Your task to perform on an android device: Show me popular videos on Youtube Image 0: 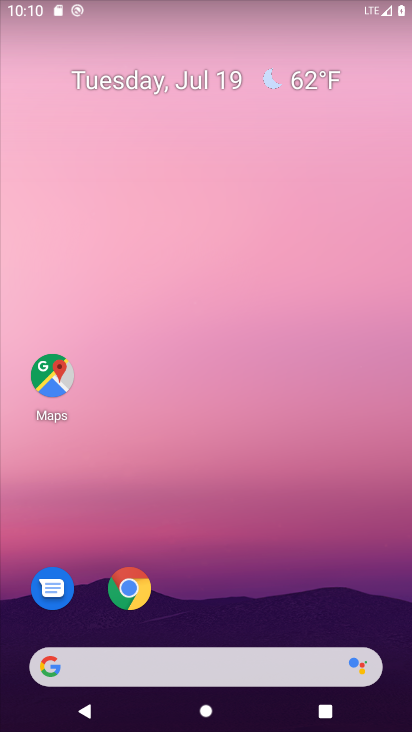
Step 0: drag from (184, 242) to (184, 131)
Your task to perform on an android device: Show me popular videos on Youtube Image 1: 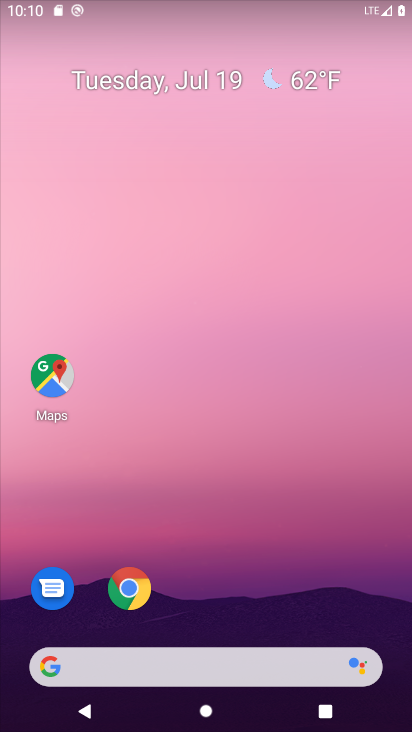
Step 1: drag from (195, 576) to (158, 115)
Your task to perform on an android device: Show me popular videos on Youtube Image 2: 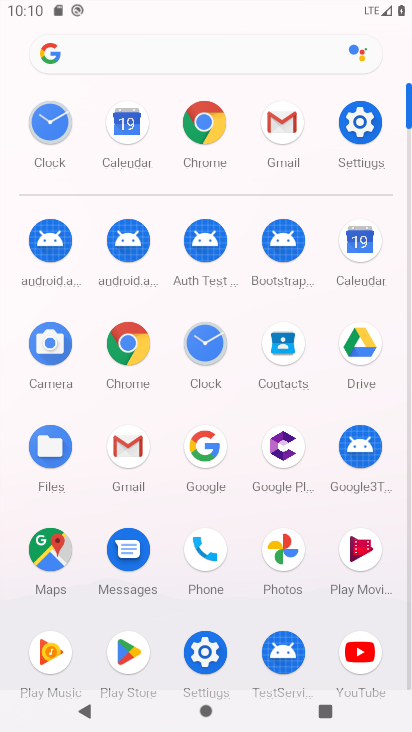
Step 2: click (350, 649)
Your task to perform on an android device: Show me popular videos on Youtube Image 3: 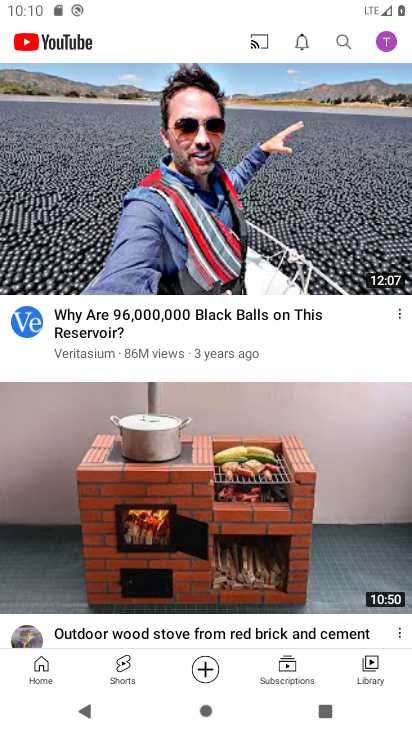
Step 3: task complete